Your task to perform on an android device: set the timer Image 0: 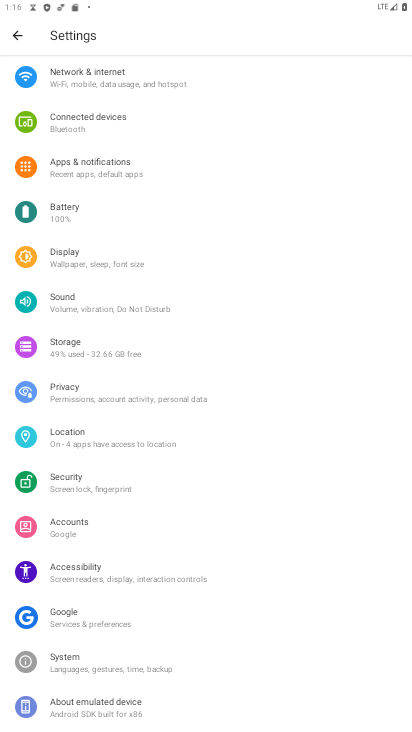
Step 0: press home button
Your task to perform on an android device: set the timer Image 1: 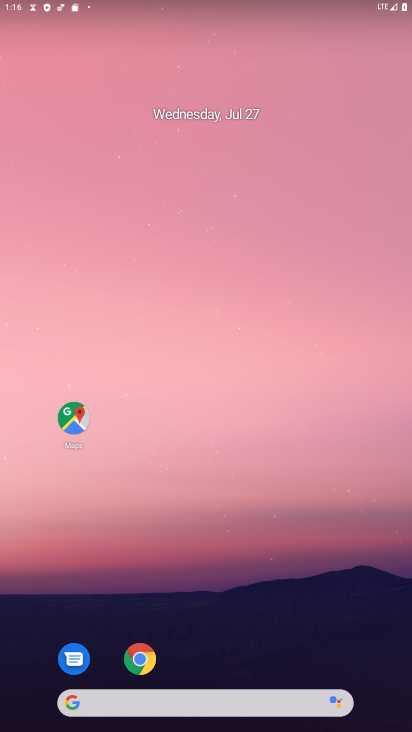
Step 1: drag from (222, 679) to (222, 250)
Your task to perform on an android device: set the timer Image 2: 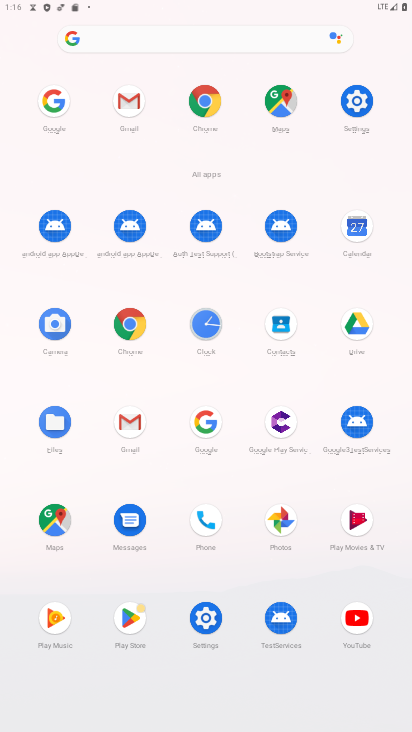
Step 2: click (210, 323)
Your task to perform on an android device: set the timer Image 3: 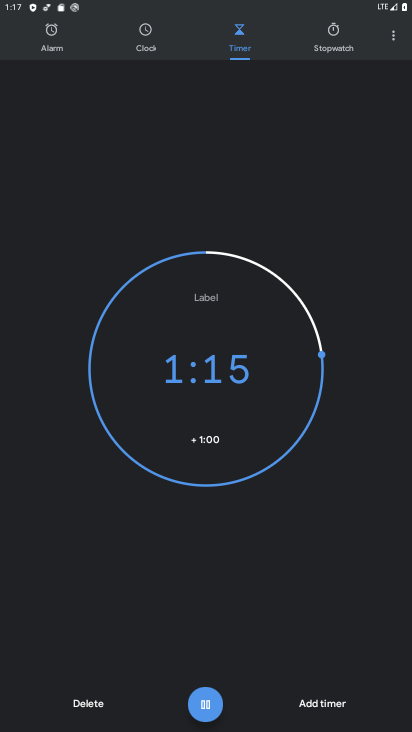
Step 3: click (318, 710)
Your task to perform on an android device: set the timer Image 4: 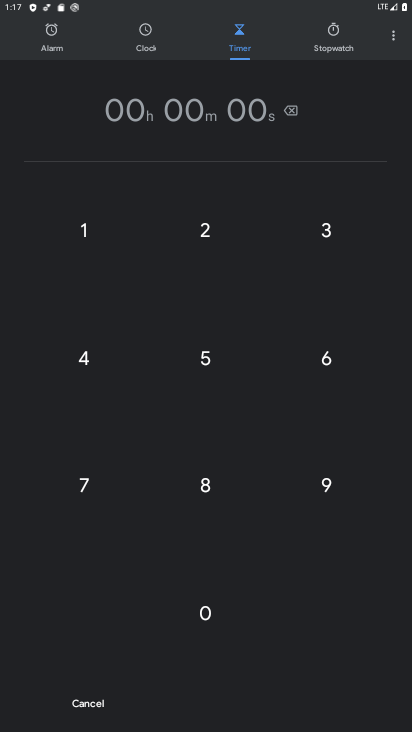
Step 4: click (203, 488)
Your task to perform on an android device: set the timer Image 5: 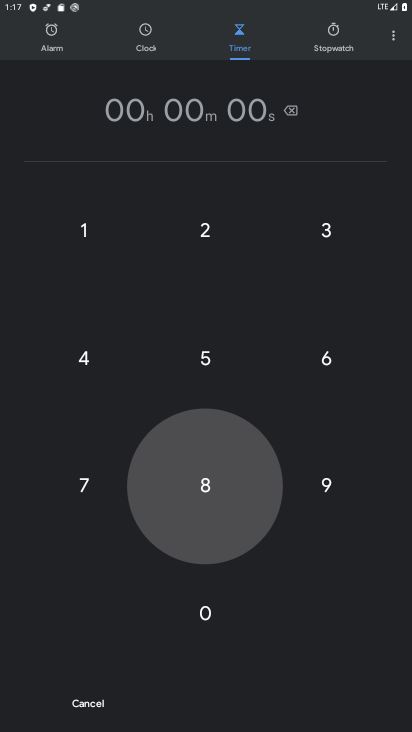
Step 5: click (213, 351)
Your task to perform on an android device: set the timer Image 6: 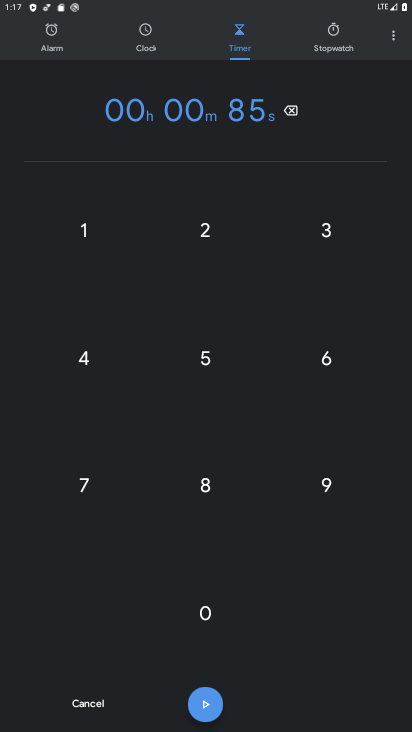
Step 6: click (317, 372)
Your task to perform on an android device: set the timer Image 7: 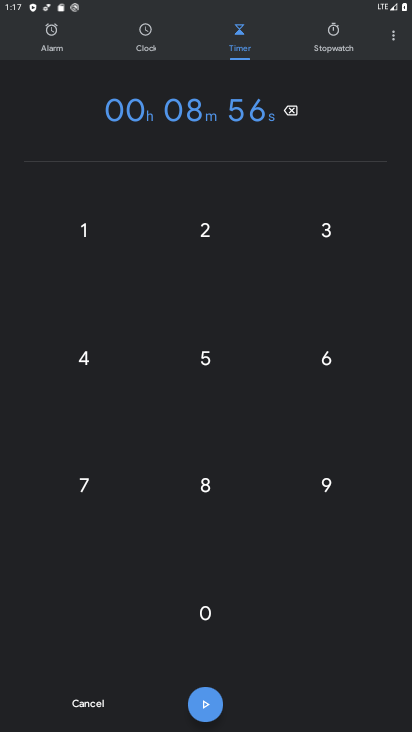
Step 7: click (203, 697)
Your task to perform on an android device: set the timer Image 8: 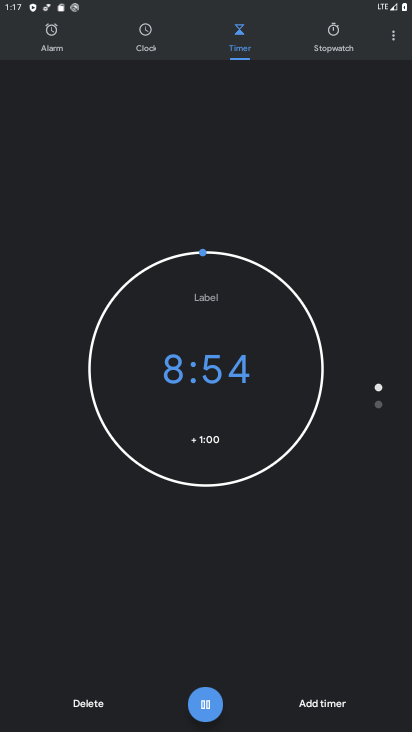
Step 8: task complete